Your task to perform on an android device: Go to eBay Image 0: 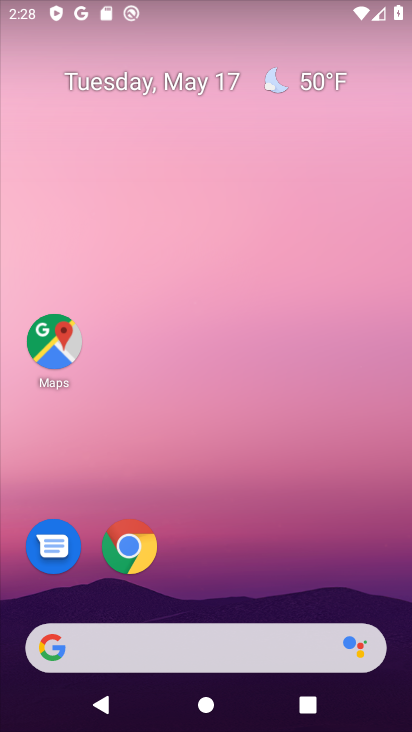
Step 0: click (141, 544)
Your task to perform on an android device: Go to eBay Image 1: 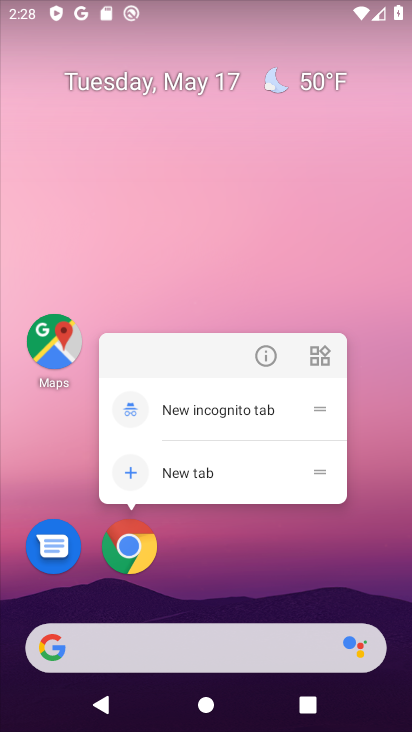
Step 1: click (125, 548)
Your task to perform on an android device: Go to eBay Image 2: 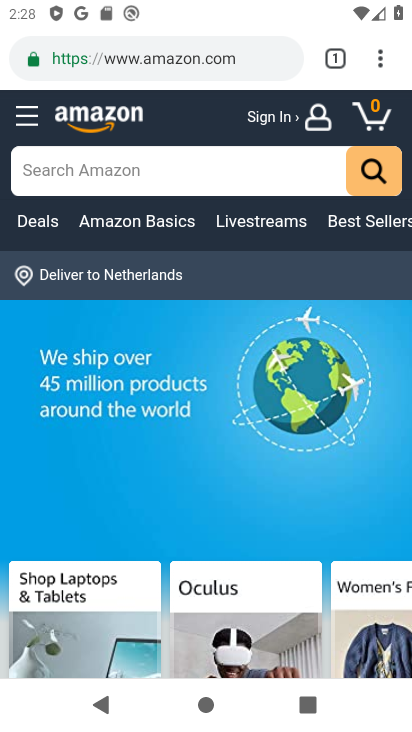
Step 2: click (170, 58)
Your task to perform on an android device: Go to eBay Image 3: 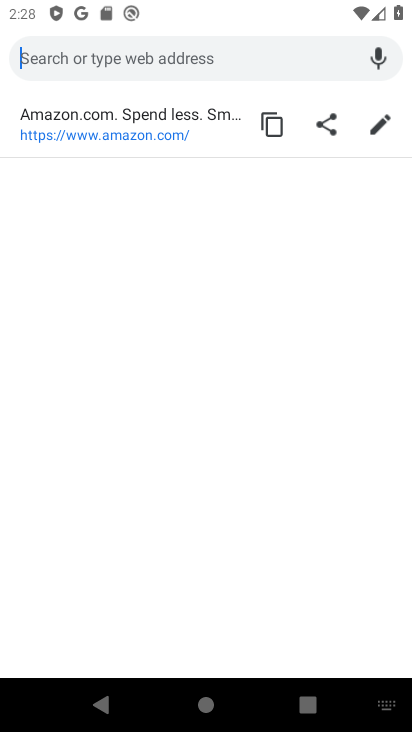
Step 3: type "eBay"
Your task to perform on an android device: Go to eBay Image 4: 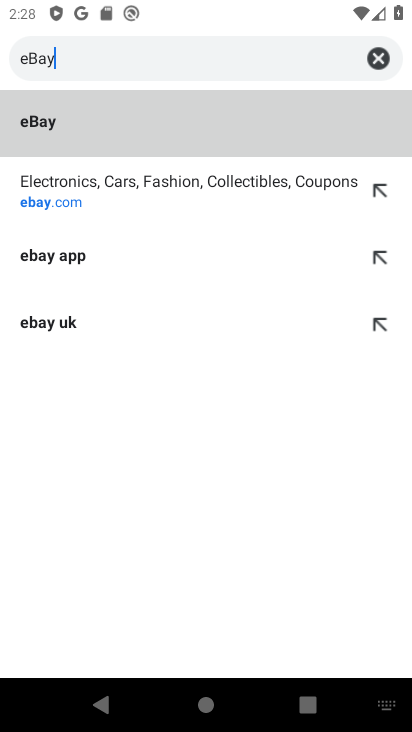
Step 4: click (58, 113)
Your task to perform on an android device: Go to eBay Image 5: 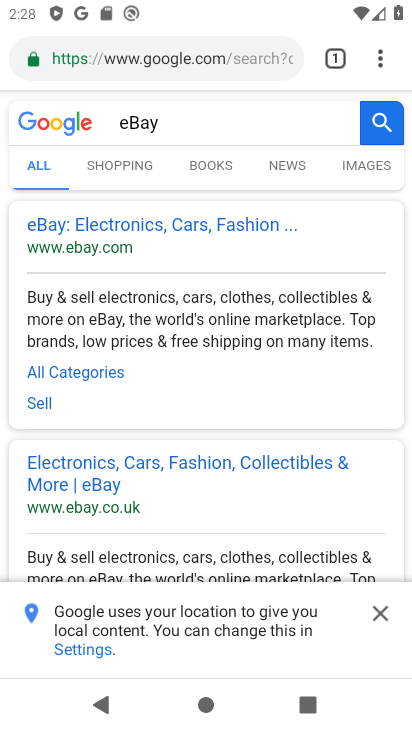
Step 5: task complete